Your task to perform on an android device: turn on priority inbox in the gmail app Image 0: 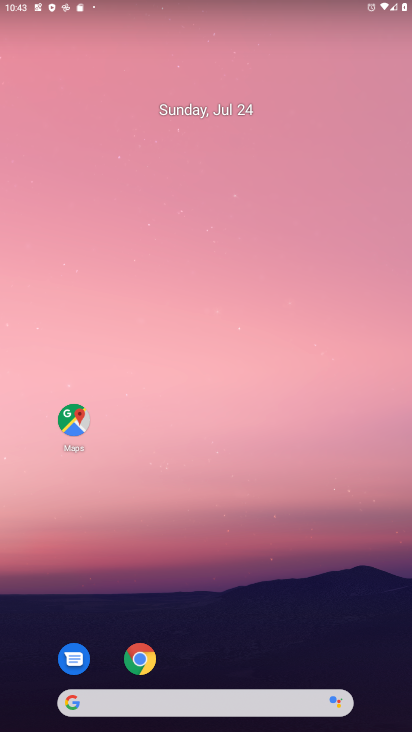
Step 0: drag from (388, 718) to (321, 234)
Your task to perform on an android device: turn on priority inbox in the gmail app Image 1: 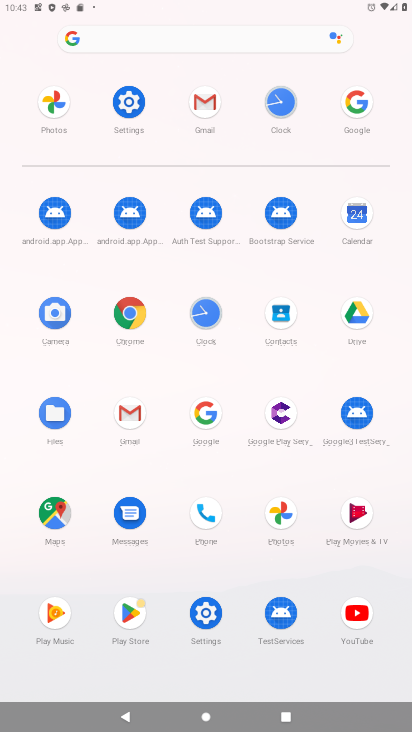
Step 1: click (129, 425)
Your task to perform on an android device: turn on priority inbox in the gmail app Image 2: 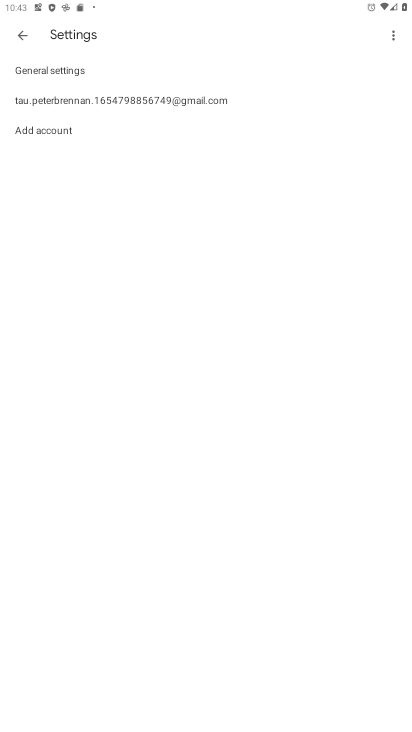
Step 2: click (22, 92)
Your task to perform on an android device: turn on priority inbox in the gmail app Image 3: 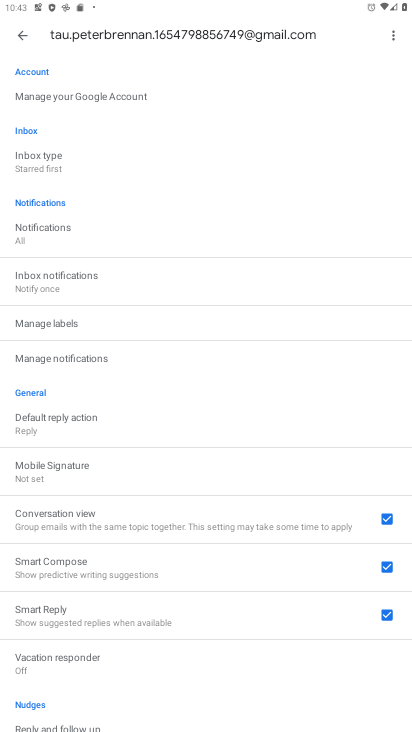
Step 3: click (45, 274)
Your task to perform on an android device: turn on priority inbox in the gmail app Image 4: 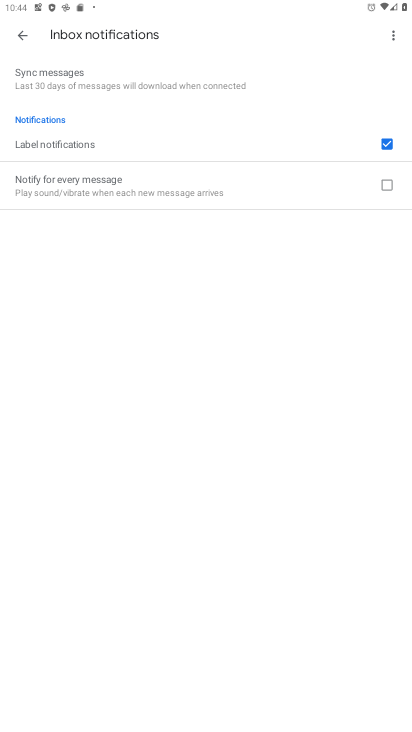
Step 4: click (23, 33)
Your task to perform on an android device: turn on priority inbox in the gmail app Image 5: 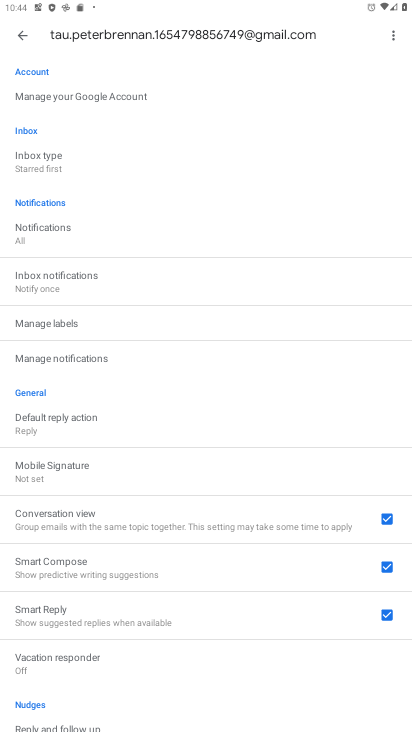
Step 5: click (38, 221)
Your task to perform on an android device: turn on priority inbox in the gmail app Image 6: 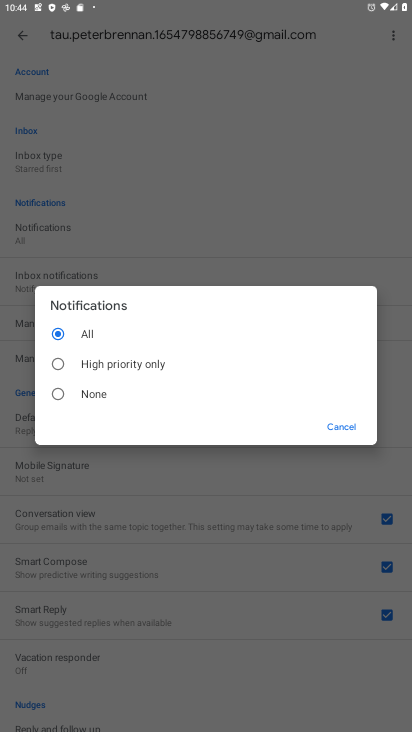
Step 6: click (159, 201)
Your task to perform on an android device: turn on priority inbox in the gmail app Image 7: 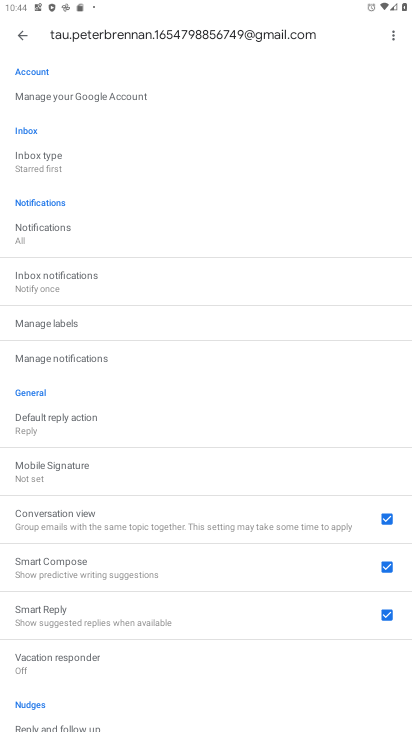
Step 7: click (26, 161)
Your task to perform on an android device: turn on priority inbox in the gmail app Image 8: 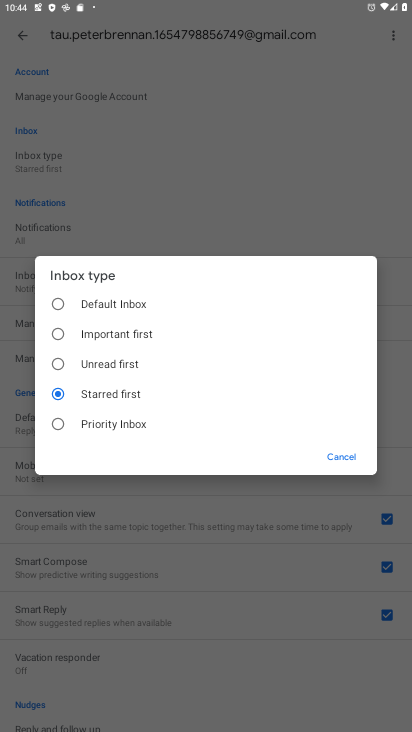
Step 8: click (54, 421)
Your task to perform on an android device: turn on priority inbox in the gmail app Image 9: 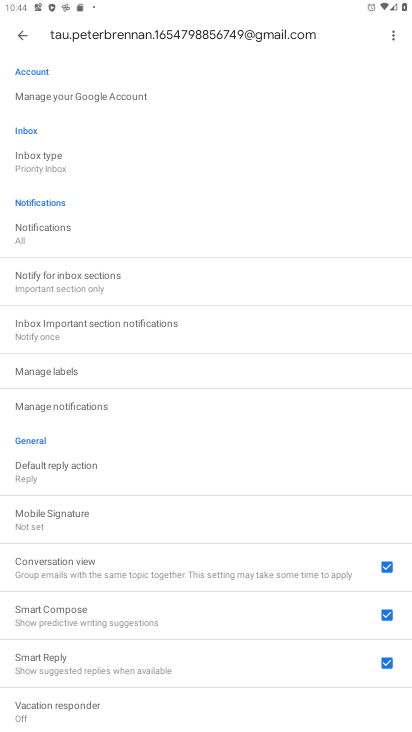
Step 9: task complete